Your task to perform on an android device: allow cookies in the chrome app Image 0: 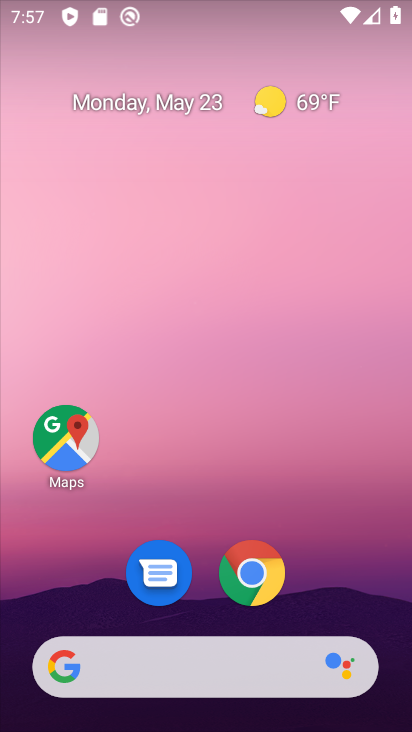
Step 0: click (252, 571)
Your task to perform on an android device: allow cookies in the chrome app Image 1: 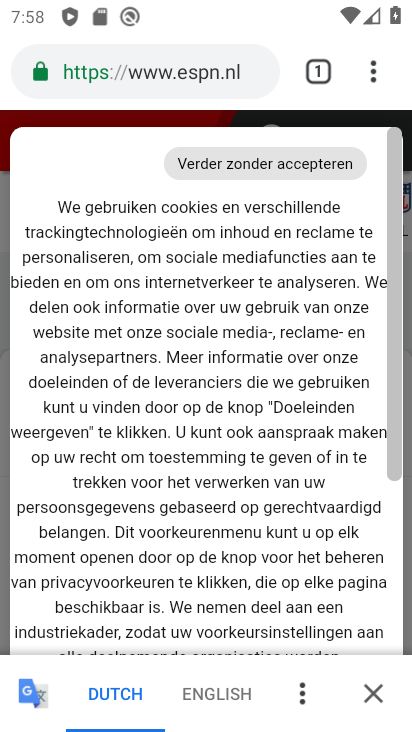
Step 1: click (365, 82)
Your task to perform on an android device: allow cookies in the chrome app Image 2: 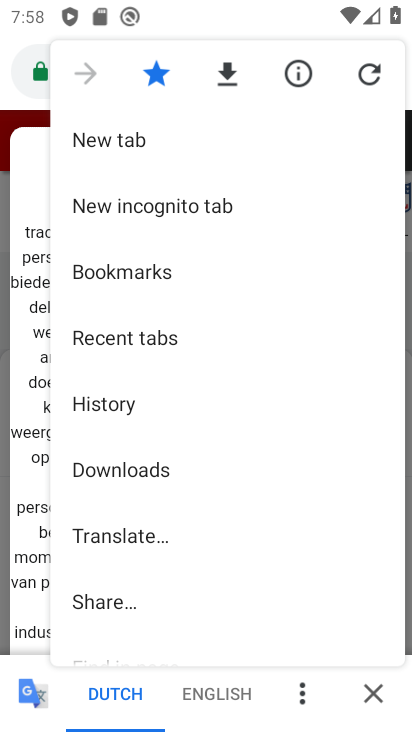
Step 2: drag from (145, 596) to (290, 135)
Your task to perform on an android device: allow cookies in the chrome app Image 3: 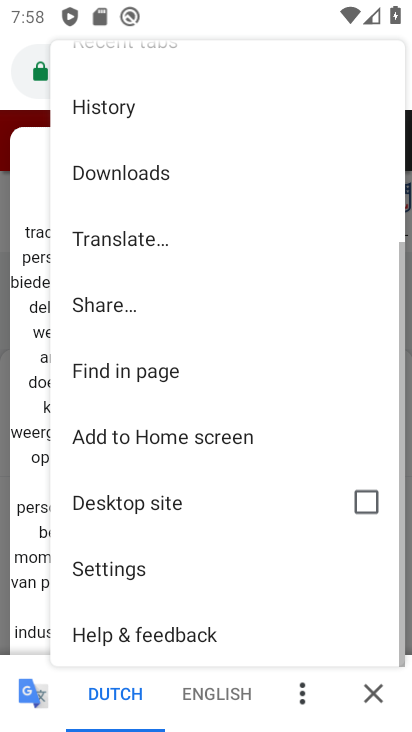
Step 3: click (110, 576)
Your task to perform on an android device: allow cookies in the chrome app Image 4: 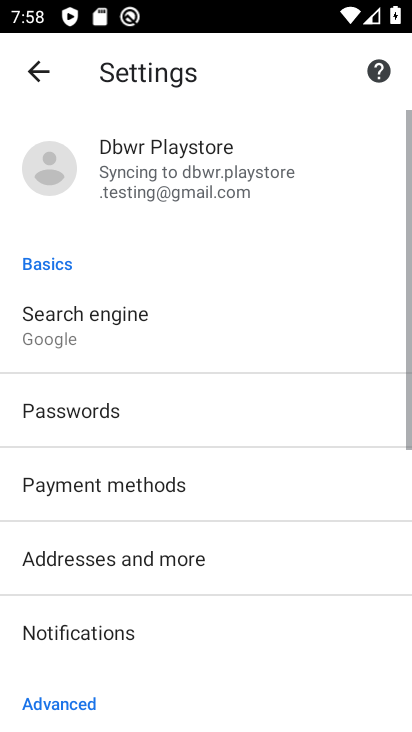
Step 4: drag from (176, 620) to (214, 117)
Your task to perform on an android device: allow cookies in the chrome app Image 5: 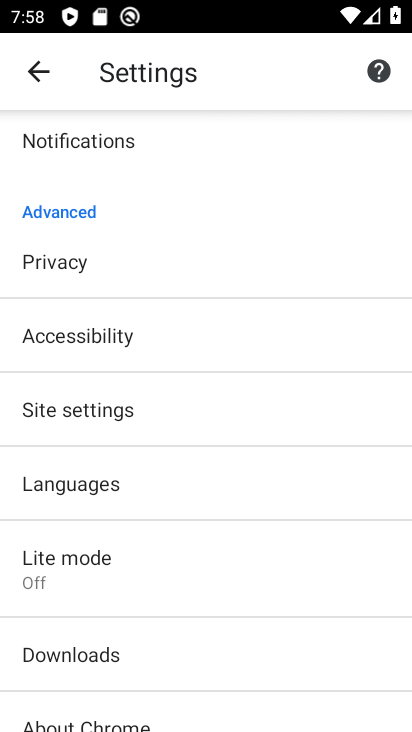
Step 5: click (43, 404)
Your task to perform on an android device: allow cookies in the chrome app Image 6: 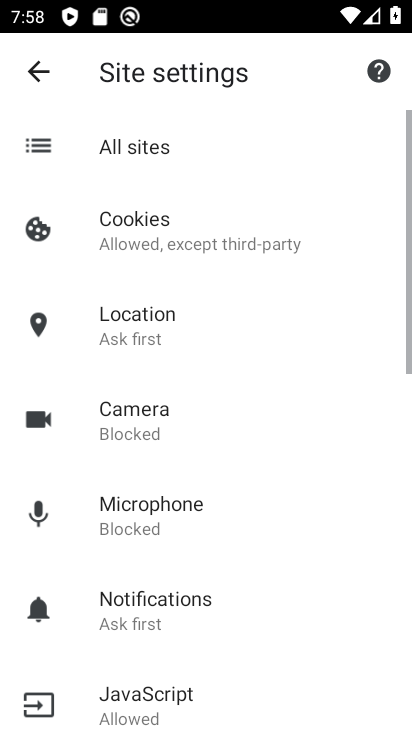
Step 6: click (194, 232)
Your task to perform on an android device: allow cookies in the chrome app Image 7: 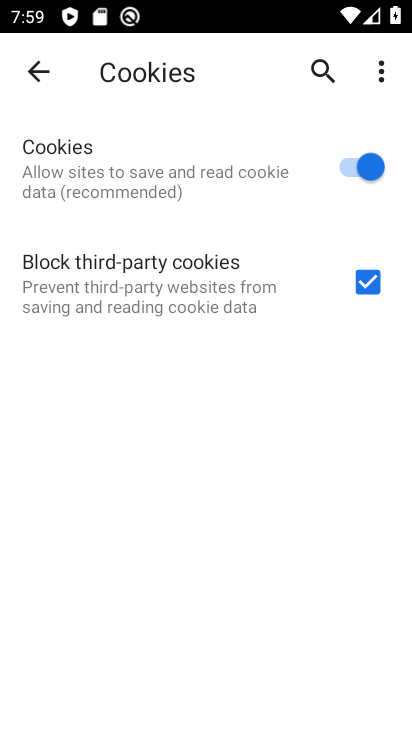
Step 7: task complete